Your task to perform on an android device: Check the news Image 0: 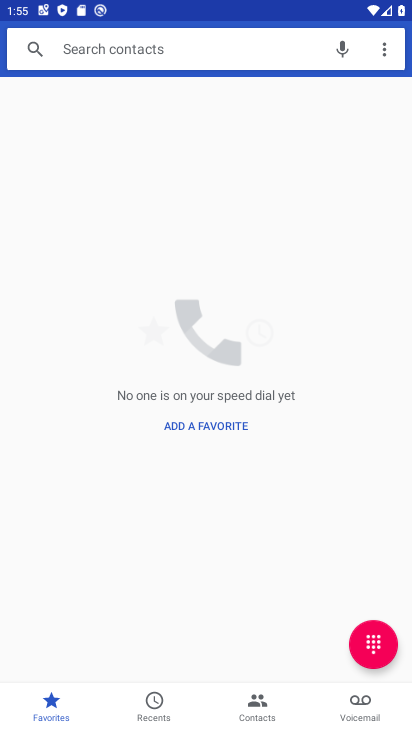
Step 0: press home button
Your task to perform on an android device: Check the news Image 1: 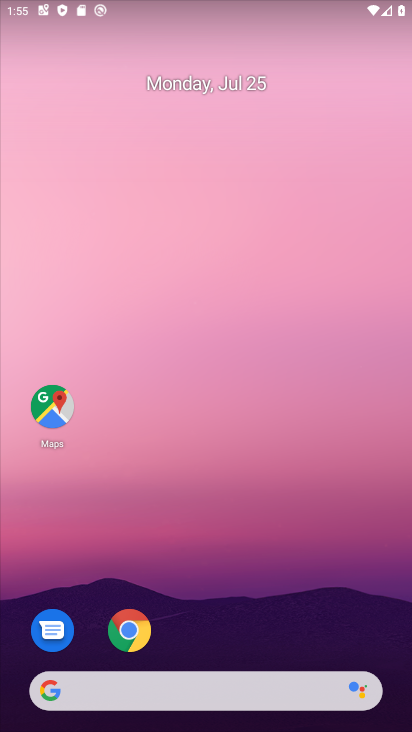
Step 1: drag from (213, 645) to (205, 180)
Your task to perform on an android device: Check the news Image 2: 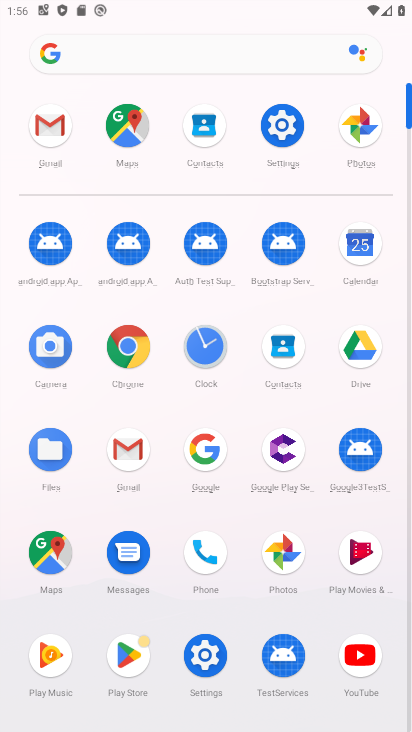
Step 2: click (267, 58)
Your task to perform on an android device: Check the news Image 3: 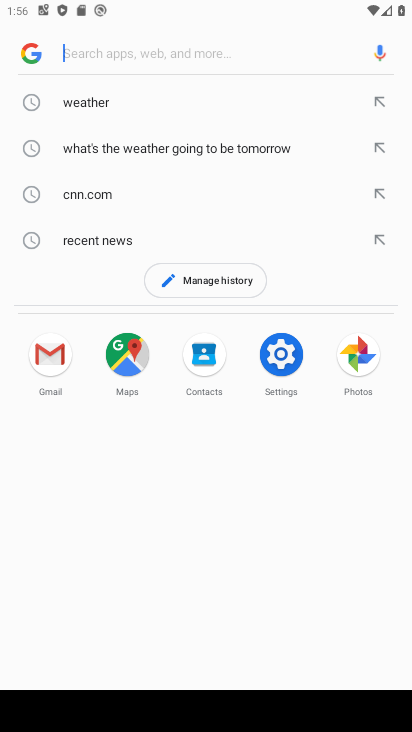
Step 3: type "news"
Your task to perform on an android device: Check the news Image 4: 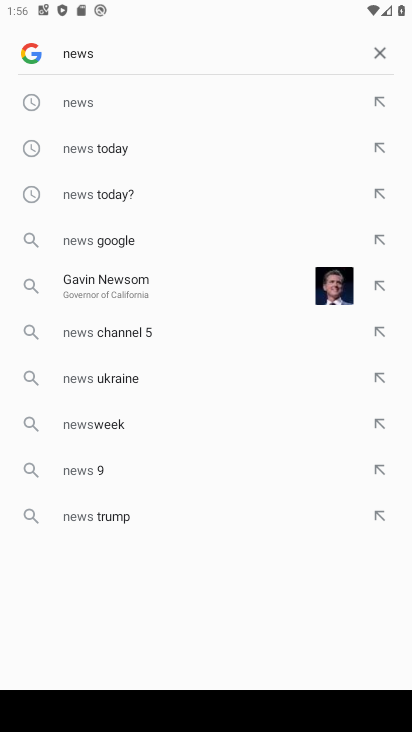
Step 4: click (70, 86)
Your task to perform on an android device: Check the news Image 5: 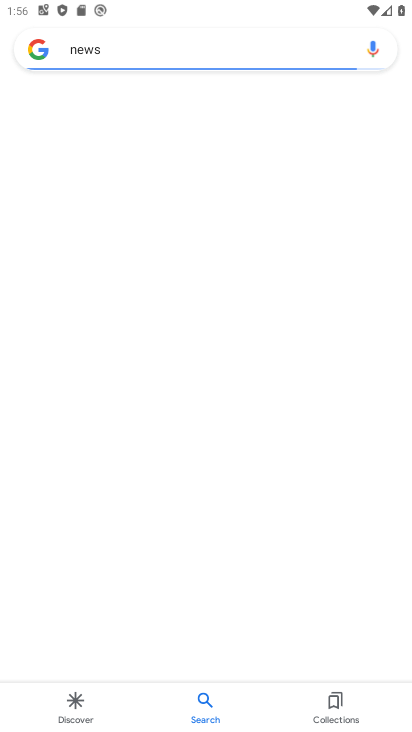
Step 5: task complete